Your task to perform on an android device: toggle wifi Image 0: 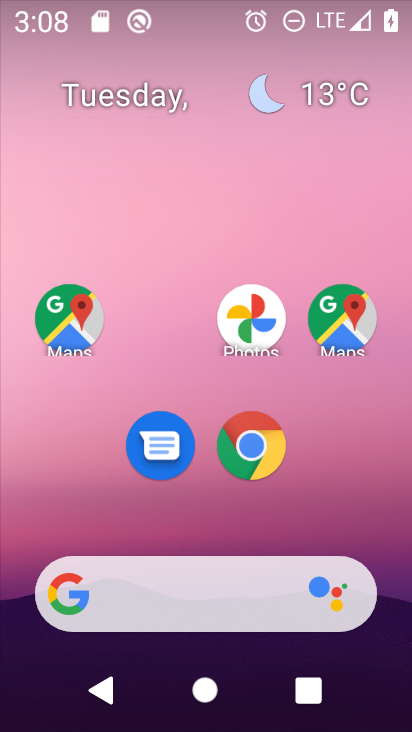
Step 0: drag from (393, 551) to (409, 250)
Your task to perform on an android device: toggle wifi Image 1: 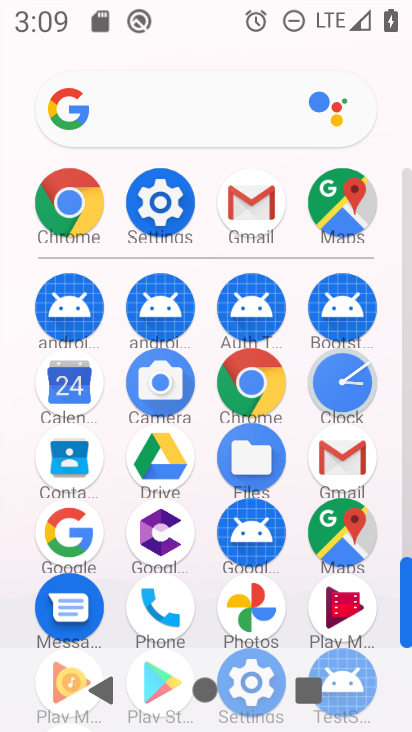
Step 1: click (145, 222)
Your task to perform on an android device: toggle wifi Image 2: 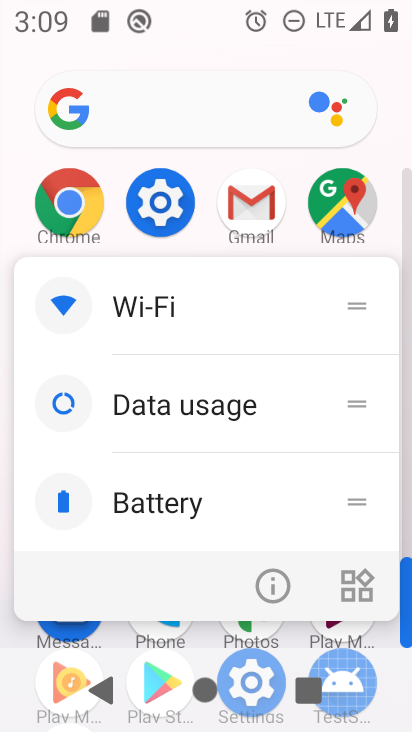
Step 2: click (147, 221)
Your task to perform on an android device: toggle wifi Image 3: 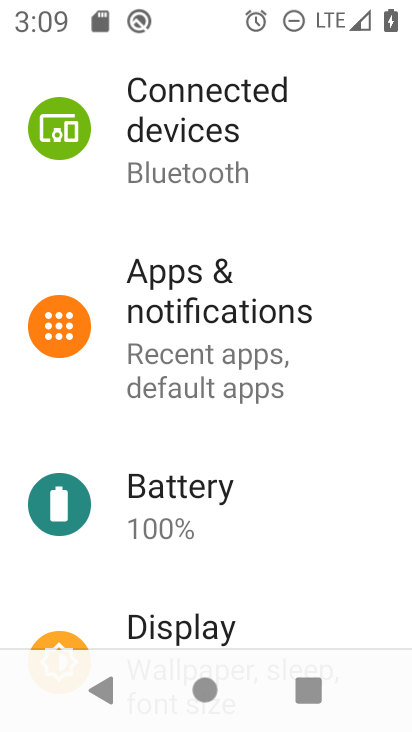
Step 3: drag from (332, 539) to (354, 437)
Your task to perform on an android device: toggle wifi Image 4: 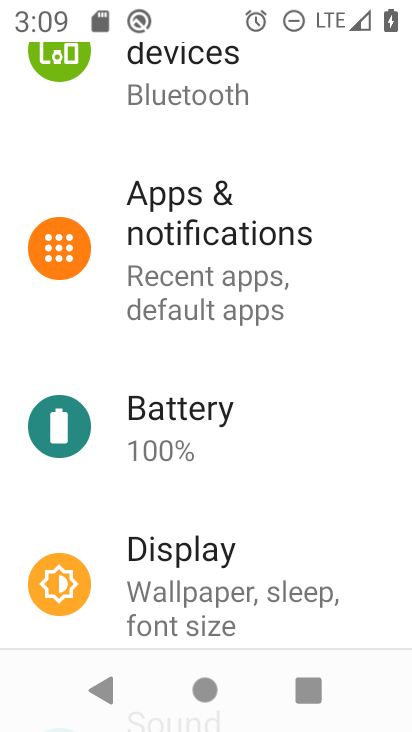
Step 4: drag from (364, 557) to (371, 455)
Your task to perform on an android device: toggle wifi Image 5: 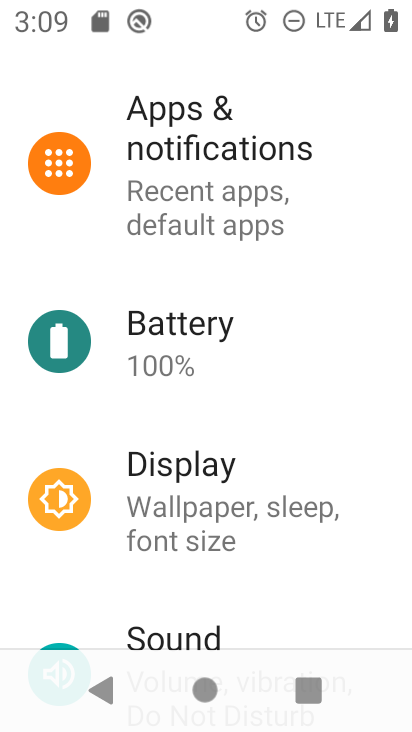
Step 5: drag from (372, 564) to (381, 460)
Your task to perform on an android device: toggle wifi Image 6: 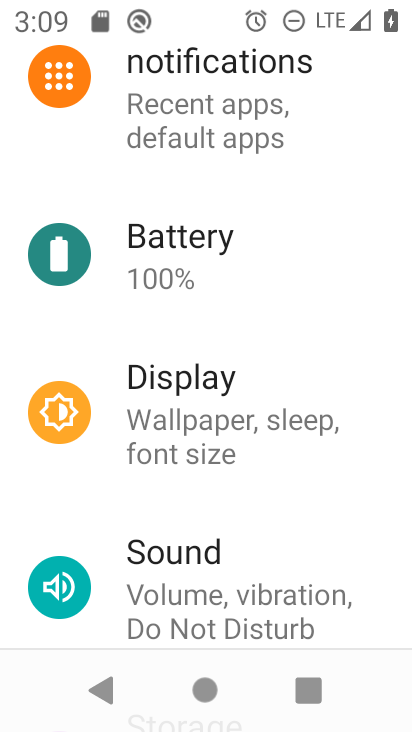
Step 6: drag from (383, 601) to (394, 488)
Your task to perform on an android device: toggle wifi Image 7: 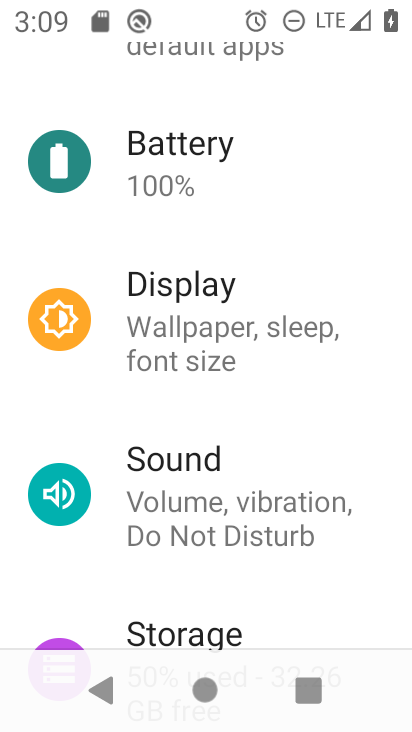
Step 7: drag from (384, 587) to (384, 482)
Your task to perform on an android device: toggle wifi Image 8: 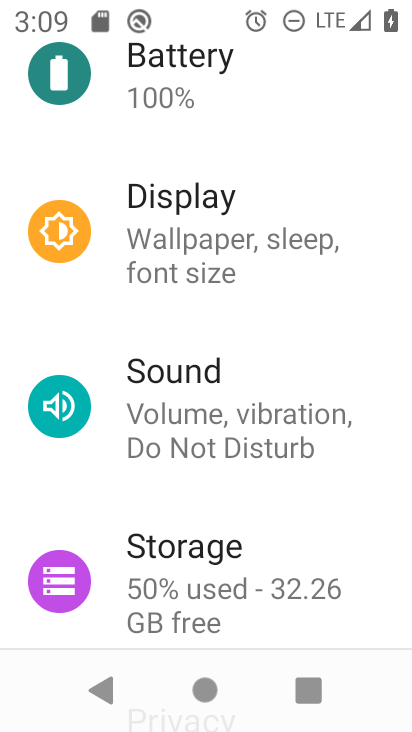
Step 8: drag from (362, 565) to (365, 484)
Your task to perform on an android device: toggle wifi Image 9: 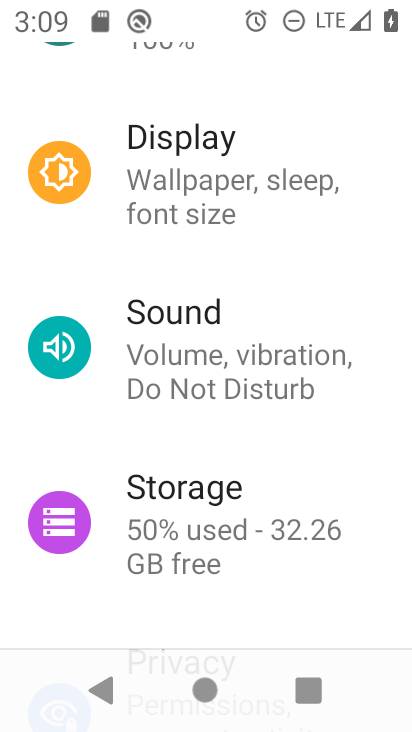
Step 9: drag from (355, 525) to (355, 396)
Your task to perform on an android device: toggle wifi Image 10: 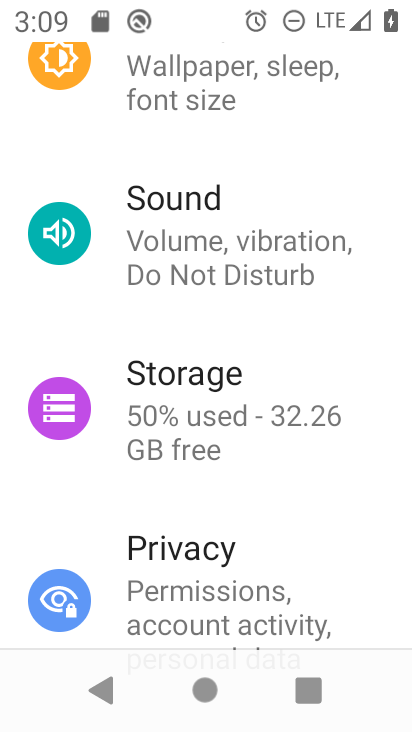
Step 10: drag from (369, 183) to (355, 297)
Your task to perform on an android device: toggle wifi Image 11: 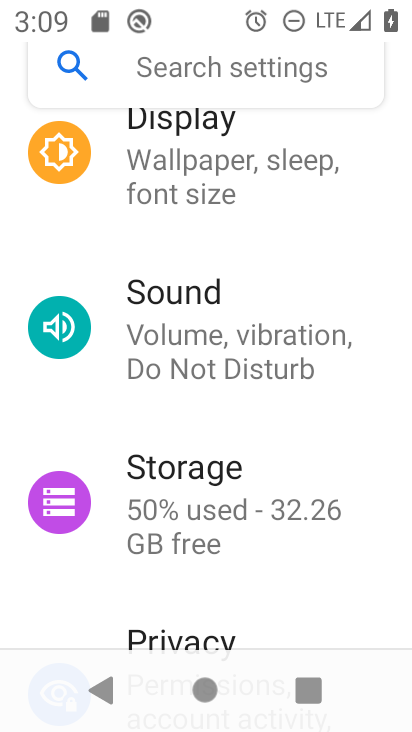
Step 11: drag from (370, 218) to (370, 305)
Your task to perform on an android device: toggle wifi Image 12: 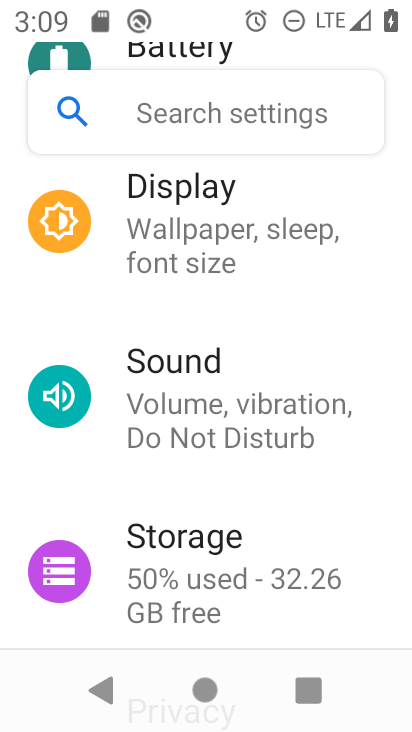
Step 12: drag from (376, 221) to (364, 366)
Your task to perform on an android device: toggle wifi Image 13: 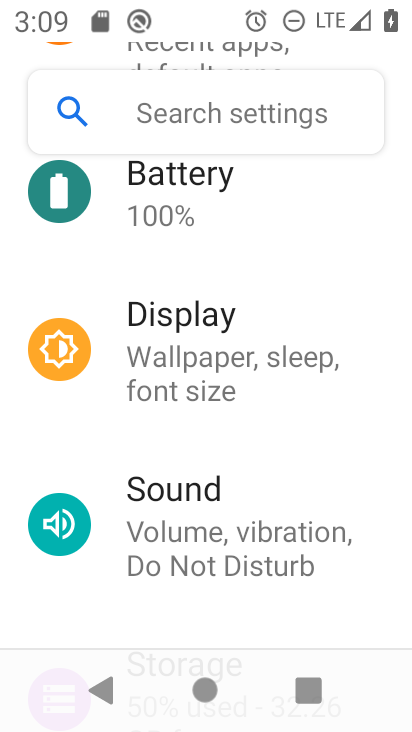
Step 13: drag from (359, 257) to (356, 377)
Your task to perform on an android device: toggle wifi Image 14: 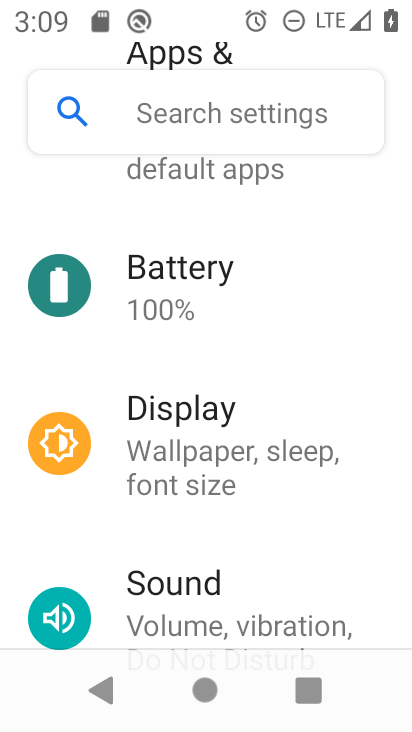
Step 14: drag from (359, 230) to (346, 350)
Your task to perform on an android device: toggle wifi Image 15: 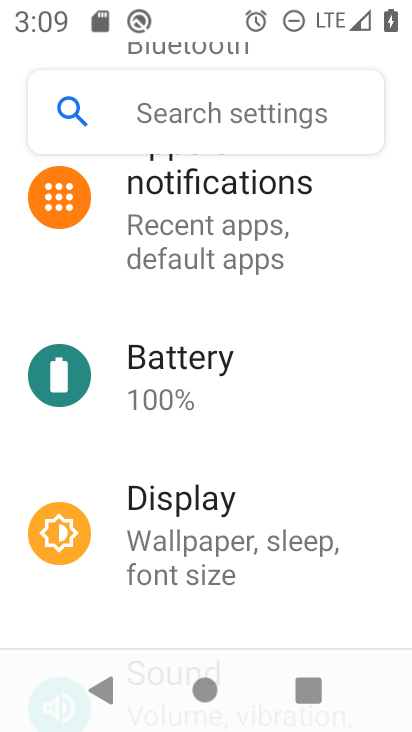
Step 15: drag from (352, 223) to (350, 342)
Your task to perform on an android device: toggle wifi Image 16: 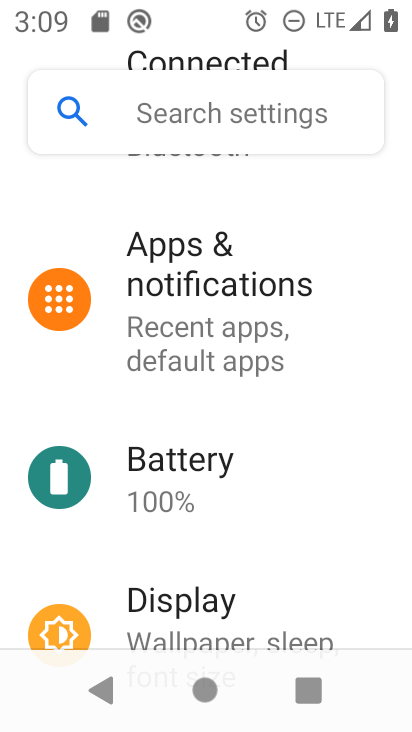
Step 16: drag from (354, 210) to (348, 360)
Your task to perform on an android device: toggle wifi Image 17: 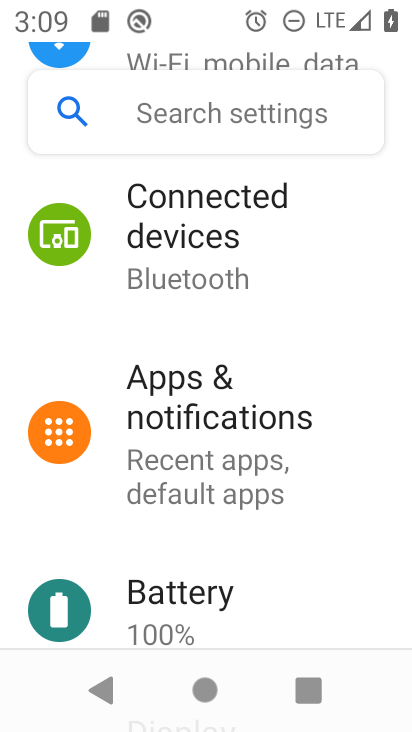
Step 17: drag from (336, 211) to (338, 390)
Your task to perform on an android device: toggle wifi Image 18: 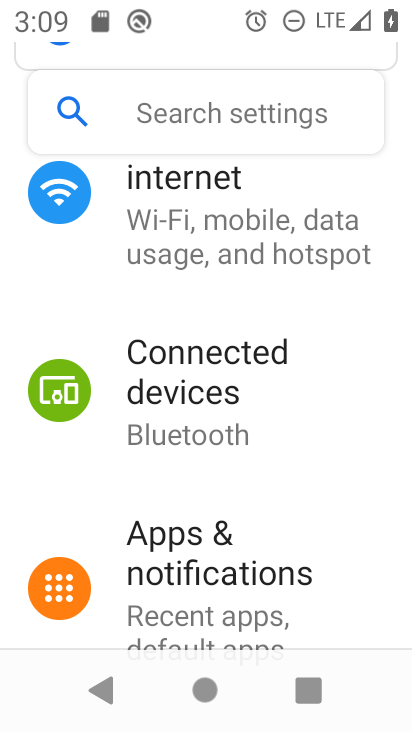
Step 18: drag from (366, 191) to (349, 384)
Your task to perform on an android device: toggle wifi Image 19: 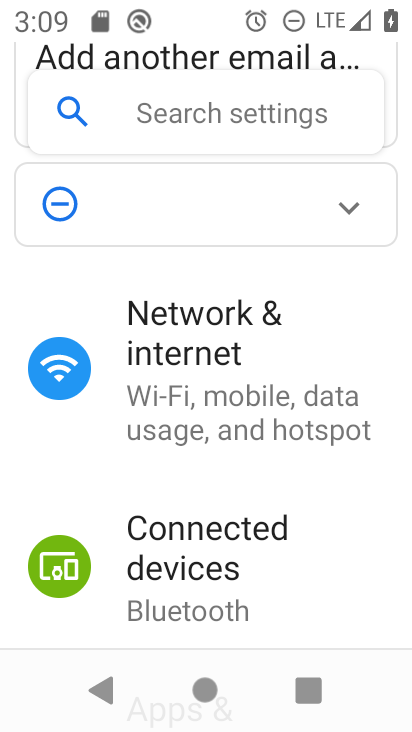
Step 19: click (310, 394)
Your task to perform on an android device: toggle wifi Image 20: 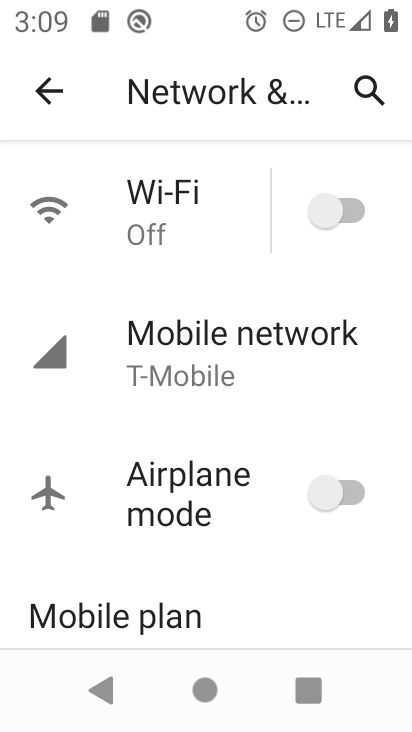
Step 20: click (323, 204)
Your task to perform on an android device: toggle wifi Image 21: 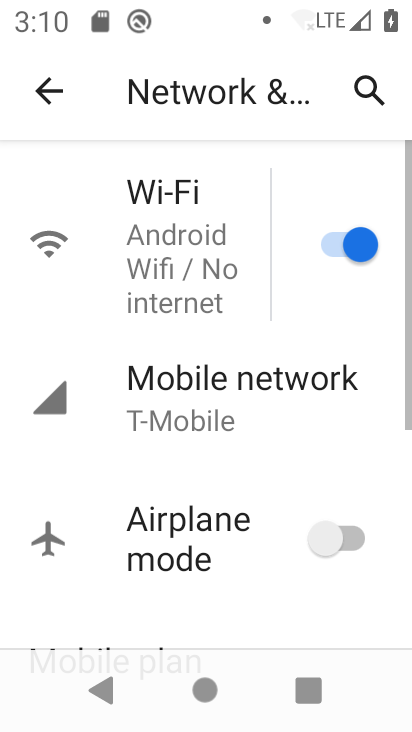
Step 21: task complete